Your task to perform on an android device: check data usage Image 0: 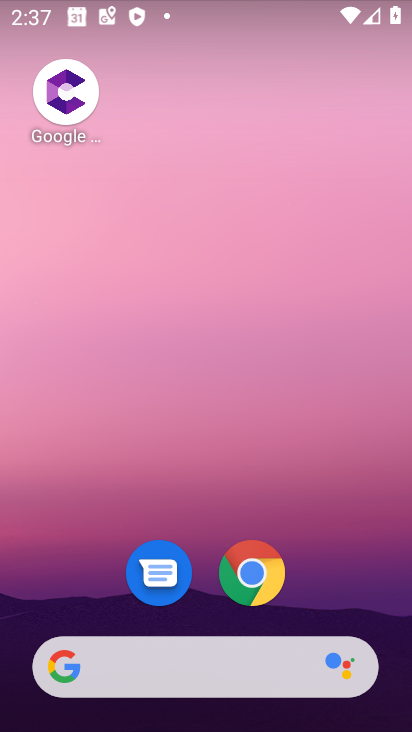
Step 0: drag from (349, 598) to (317, 61)
Your task to perform on an android device: check data usage Image 1: 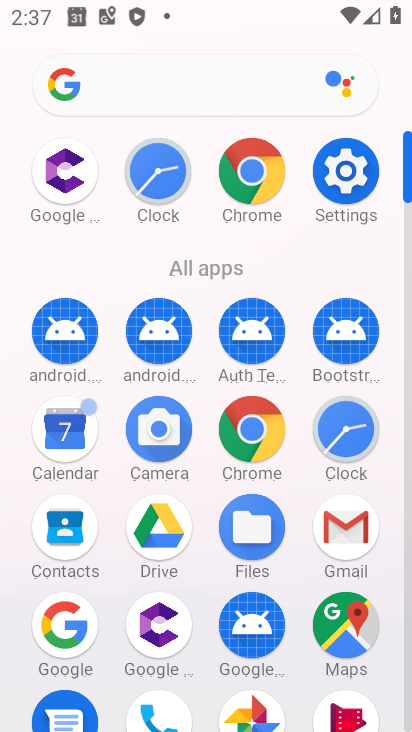
Step 1: click (351, 165)
Your task to perform on an android device: check data usage Image 2: 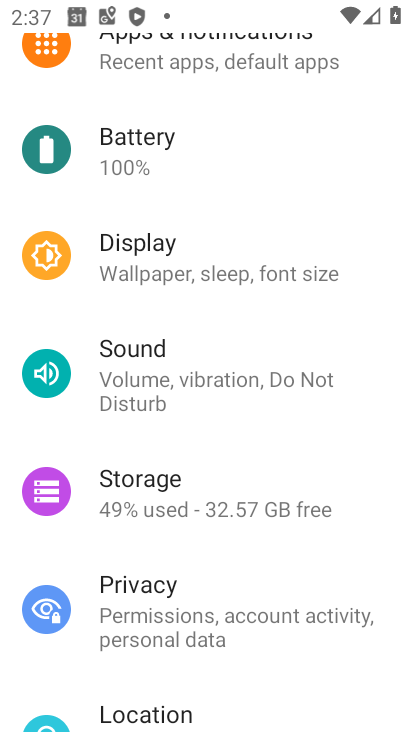
Step 2: drag from (159, 201) to (277, 664)
Your task to perform on an android device: check data usage Image 3: 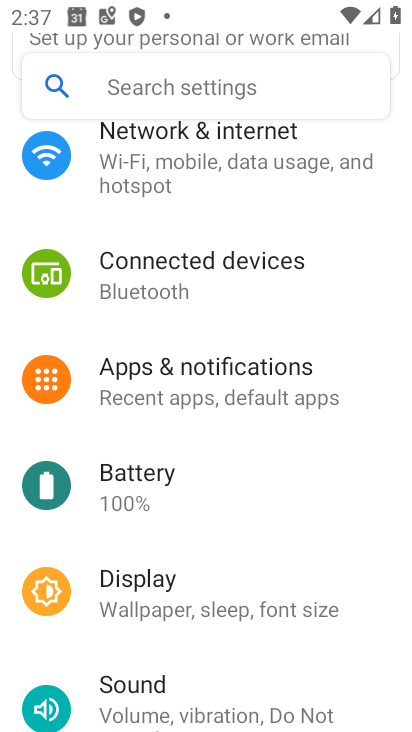
Step 3: click (136, 164)
Your task to perform on an android device: check data usage Image 4: 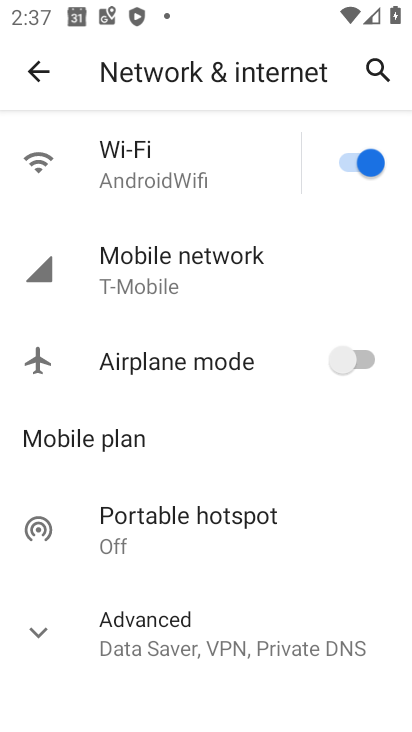
Step 4: click (144, 278)
Your task to perform on an android device: check data usage Image 5: 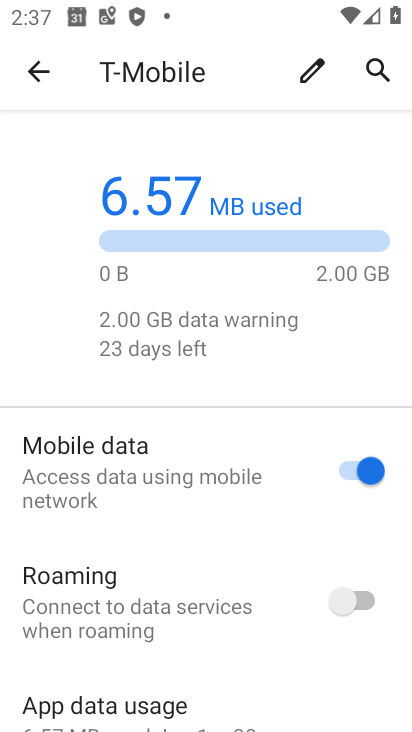
Step 5: click (116, 697)
Your task to perform on an android device: check data usage Image 6: 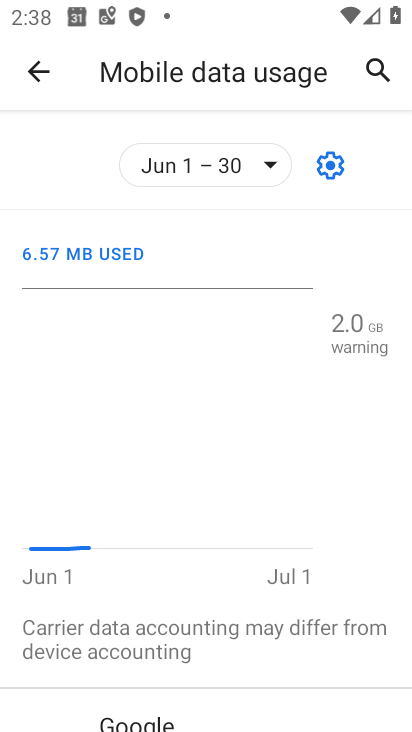
Step 6: task complete